Your task to perform on an android device: Find coffee shops on Maps Image 0: 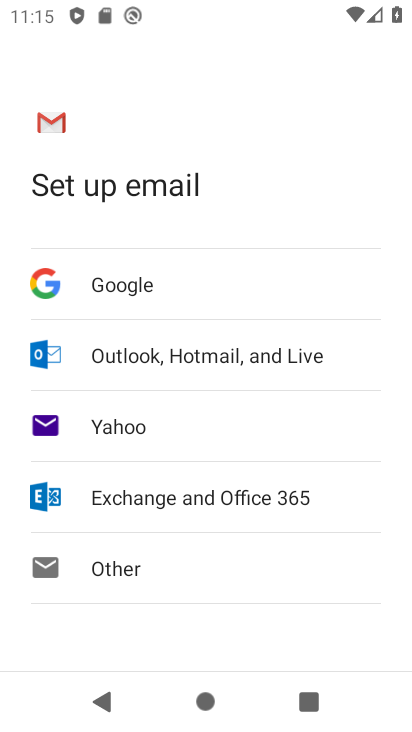
Step 0: press home button
Your task to perform on an android device: Find coffee shops on Maps Image 1: 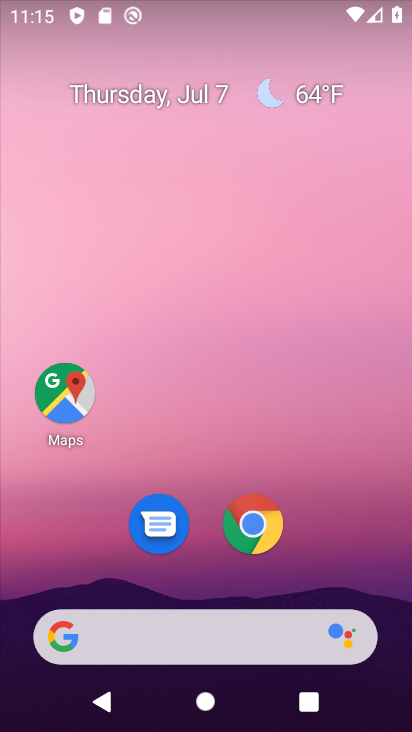
Step 1: click (63, 387)
Your task to perform on an android device: Find coffee shops on Maps Image 2: 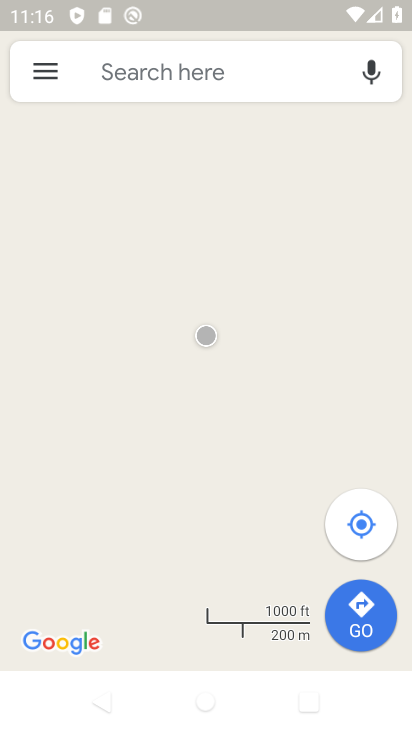
Step 2: click (219, 67)
Your task to perform on an android device: Find coffee shops on Maps Image 3: 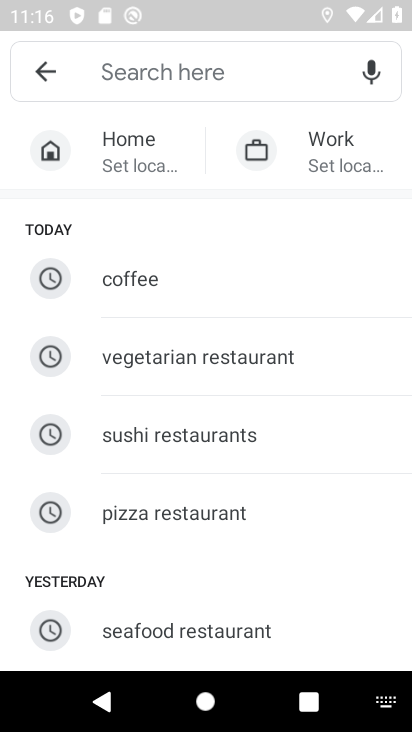
Step 3: type "coffee"
Your task to perform on an android device: Find coffee shops on Maps Image 4: 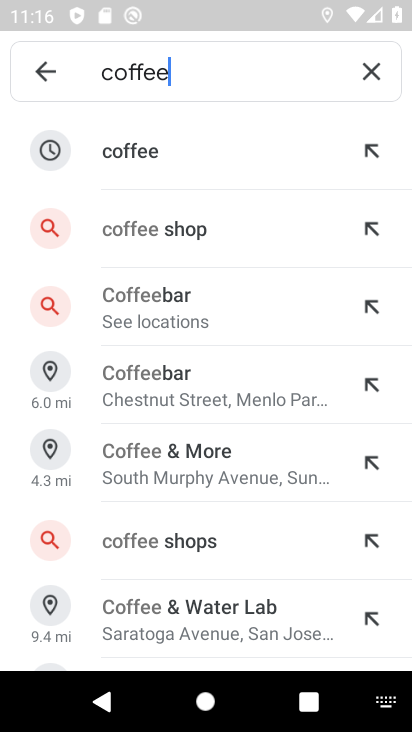
Step 4: click (151, 228)
Your task to perform on an android device: Find coffee shops on Maps Image 5: 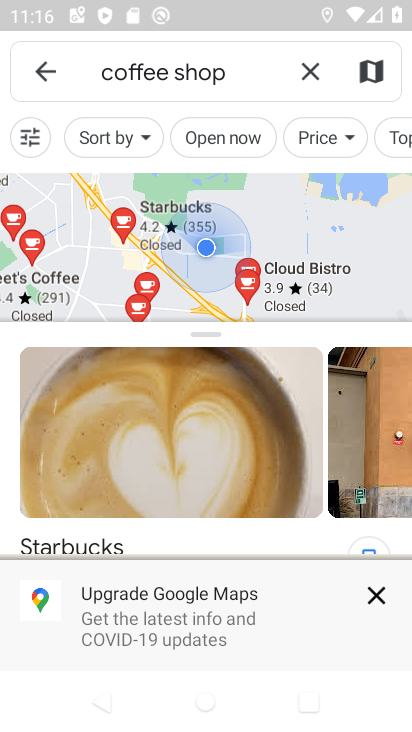
Step 5: click (376, 589)
Your task to perform on an android device: Find coffee shops on Maps Image 6: 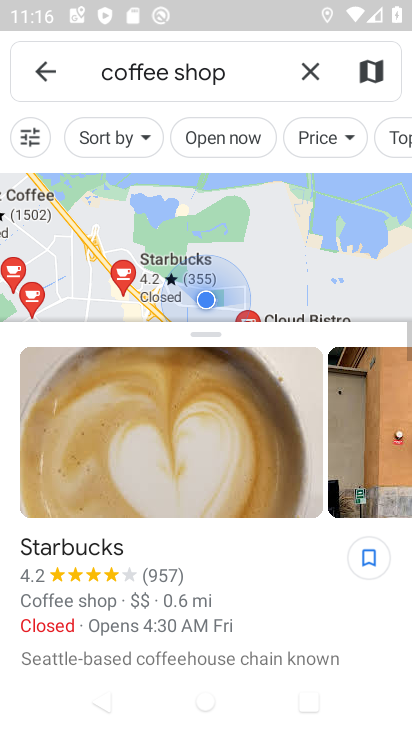
Step 6: task complete